Your task to perform on an android device: Open Amazon Image 0: 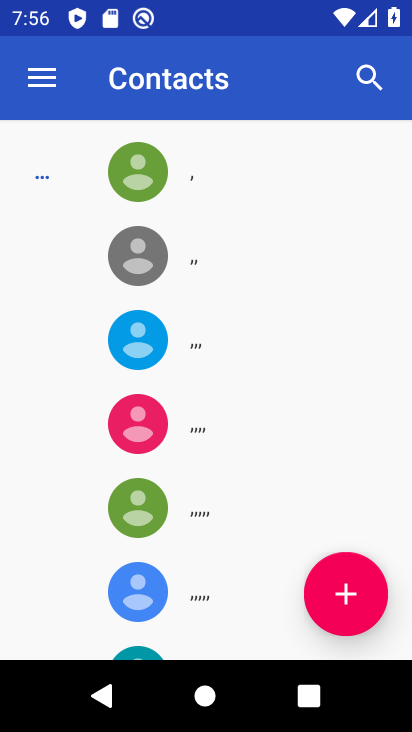
Step 0: press home button
Your task to perform on an android device: Open Amazon Image 1: 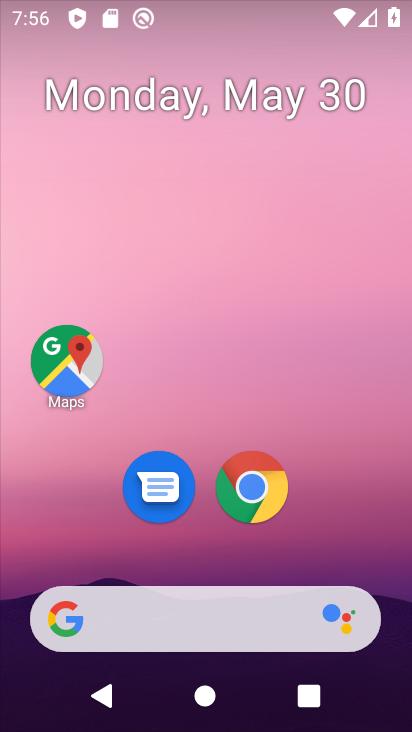
Step 1: click (241, 477)
Your task to perform on an android device: Open Amazon Image 2: 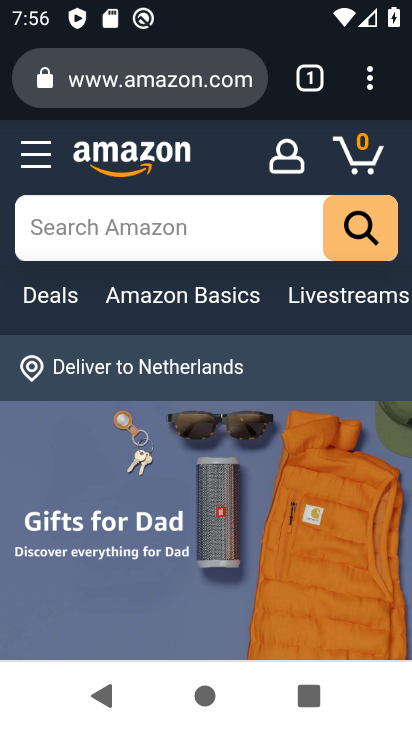
Step 2: task complete